Your task to perform on an android device: Show me the alarms in the clock app Image 0: 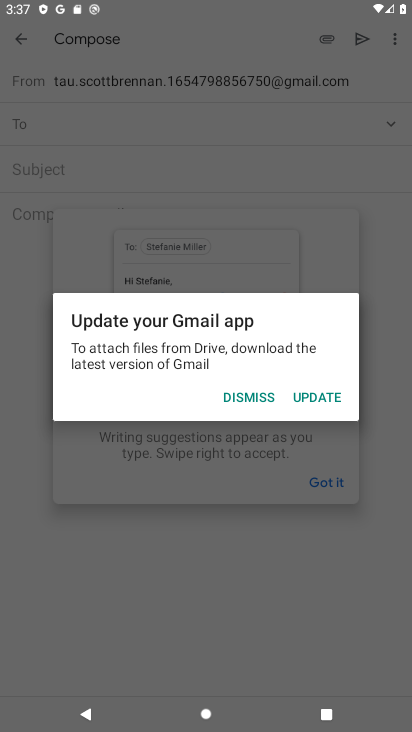
Step 0: task complete